Your task to perform on an android device: turn off notifications settings in the gmail app Image 0: 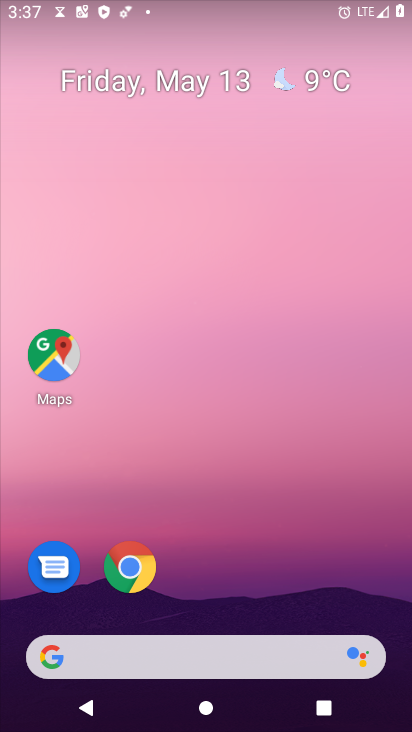
Step 0: drag from (263, 614) to (397, 383)
Your task to perform on an android device: turn off notifications settings in the gmail app Image 1: 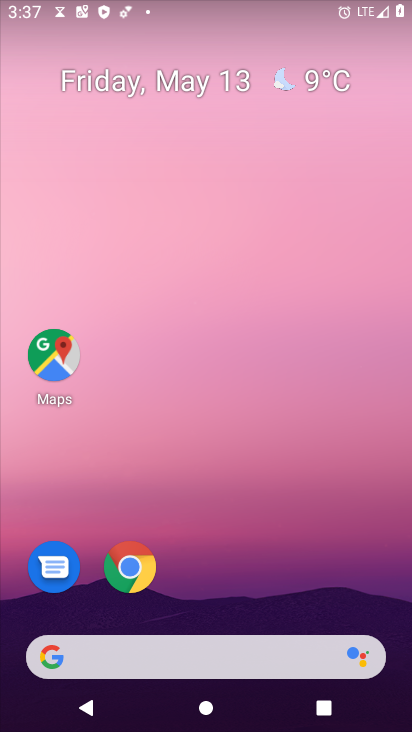
Step 1: drag from (300, 629) to (339, 59)
Your task to perform on an android device: turn off notifications settings in the gmail app Image 2: 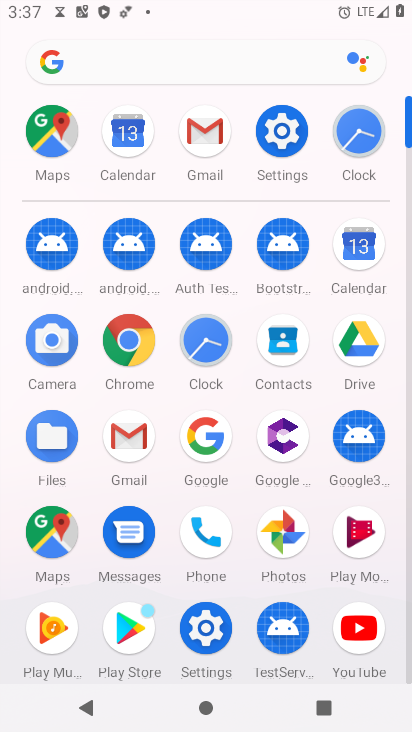
Step 2: click (213, 145)
Your task to perform on an android device: turn off notifications settings in the gmail app Image 3: 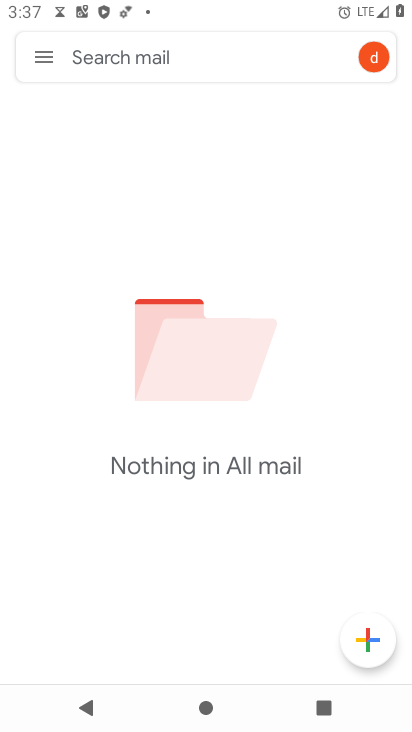
Step 3: click (38, 62)
Your task to perform on an android device: turn off notifications settings in the gmail app Image 4: 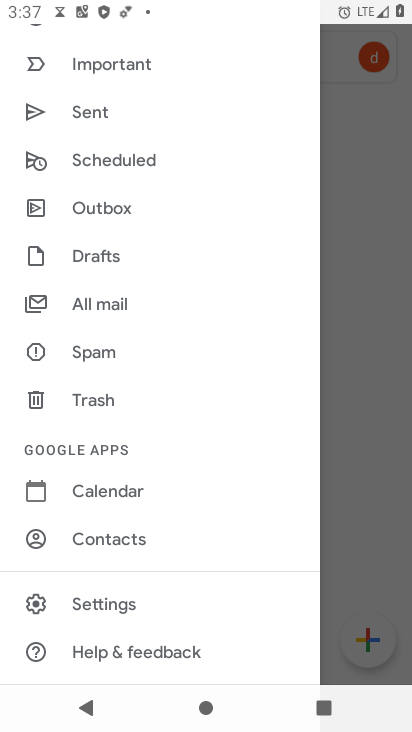
Step 4: click (97, 600)
Your task to perform on an android device: turn off notifications settings in the gmail app Image 5: 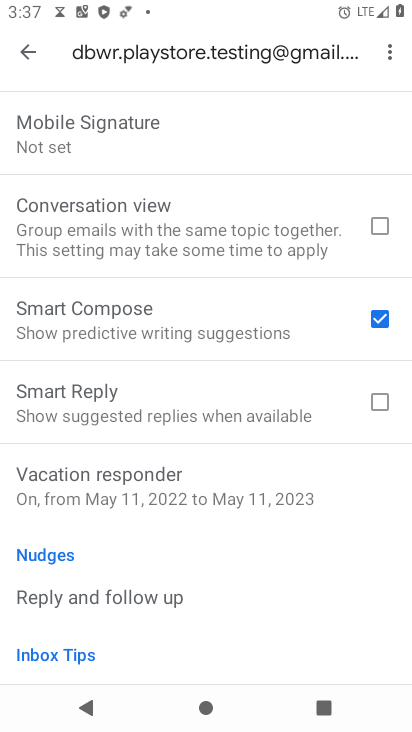
Step 5: click (32, 53)
Your task to perform on an android device: turn off notifications settings in the gmail app Image 6: 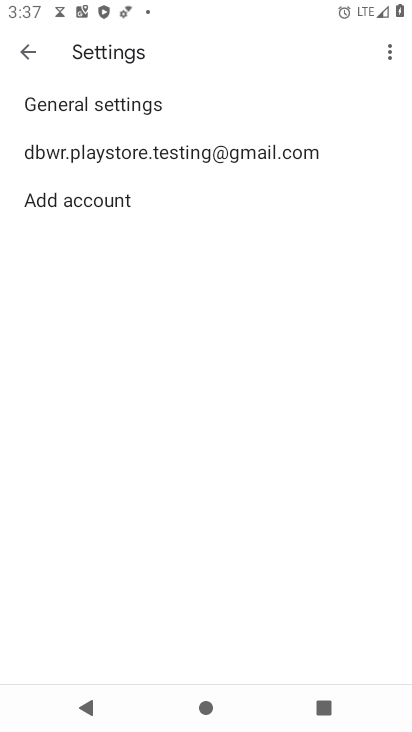
Step 6: click (45, 103)
Your task to perform on an android device: turn off notifications settings in the gmail app Image 7: 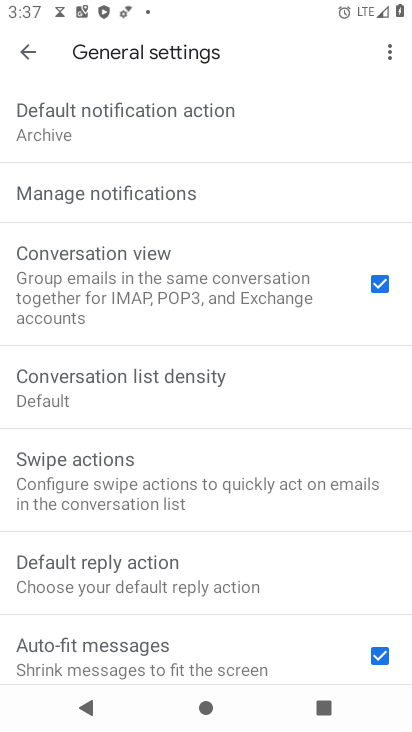
Step 7: click (100, 201)
Your task to perform on an android device: turn off notifications settings in the gmail app Image 8: 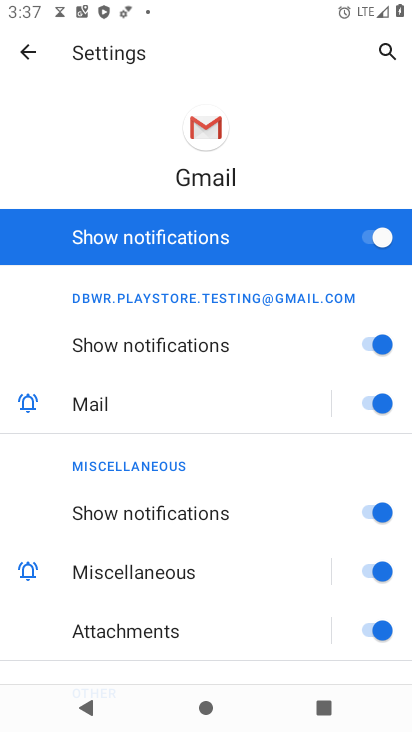
Step 8: click (387, 241)
Your task to perform on an android device: turn off notifications settings in the gmail app Image 9: 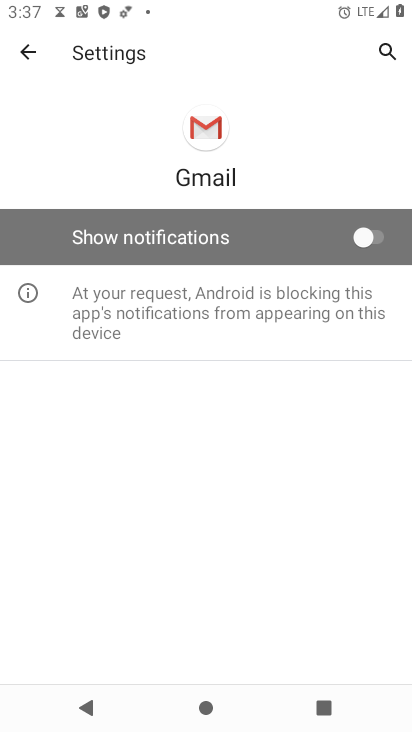
Step 9: task complete